Your task to perform on an android device: turn on data saver in the chrome app Image 0: 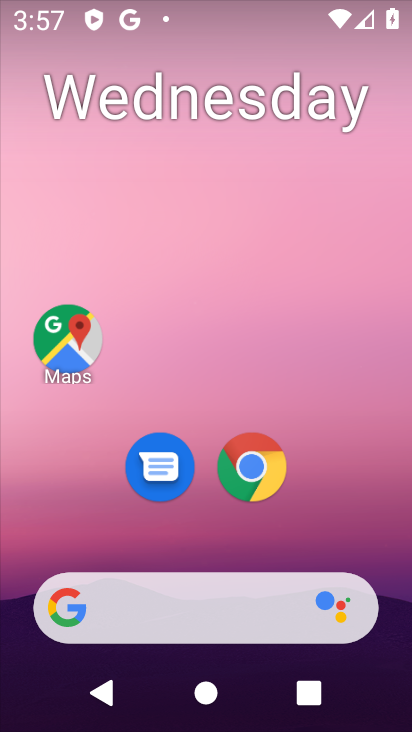
Step 0: drag from (210, 565) to (238, 205)
Your task to perform on an android device: turn on data saver in the chrome app Image 1: 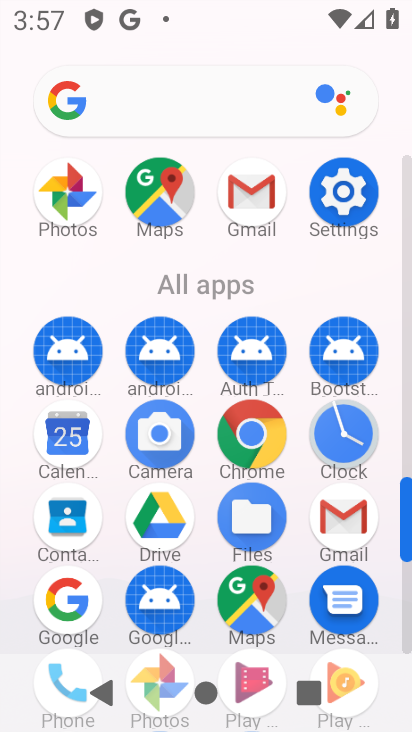
Step 1: click (260, 445)
Your task to perform on an android device: turn on data saver in the chrome app Image 2: 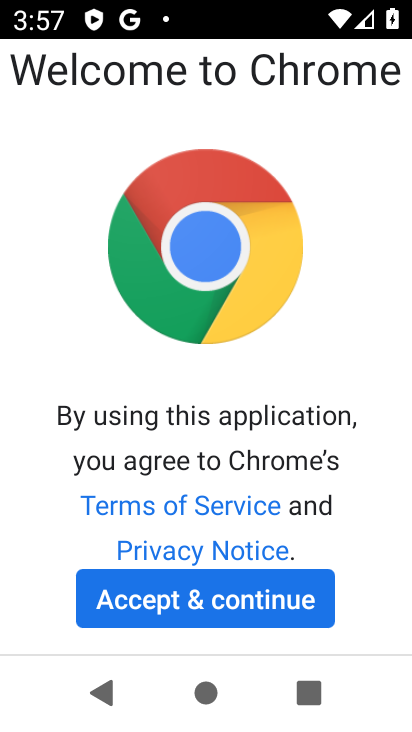
Step 2: click (247, 596)
Your task to perform on an android device: turn on data saver in the chrome app Image 3: 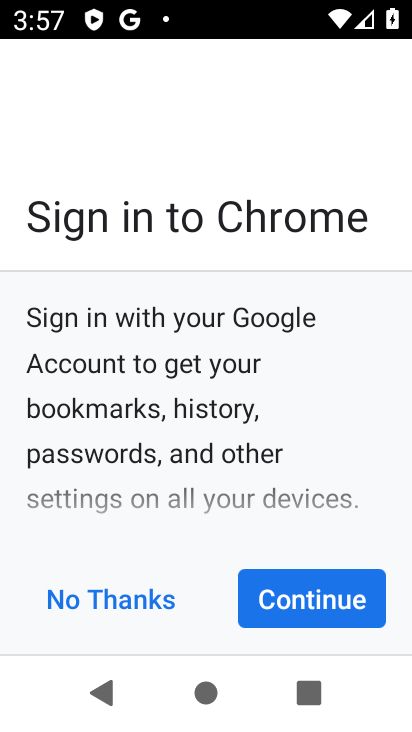
Step 3: click (280, 585)
Your task to perform on an android device: turn on data saver in the chrome app Image 4: 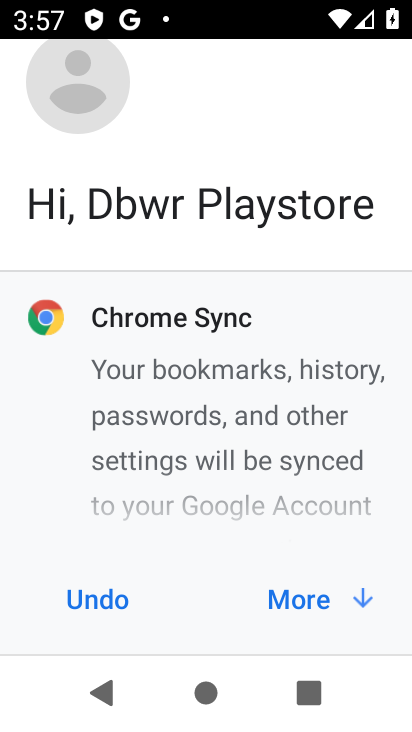
Step 4: click (290, 603)
Your task to perform on an android device: turn on data saver in the chrome app Image 5: 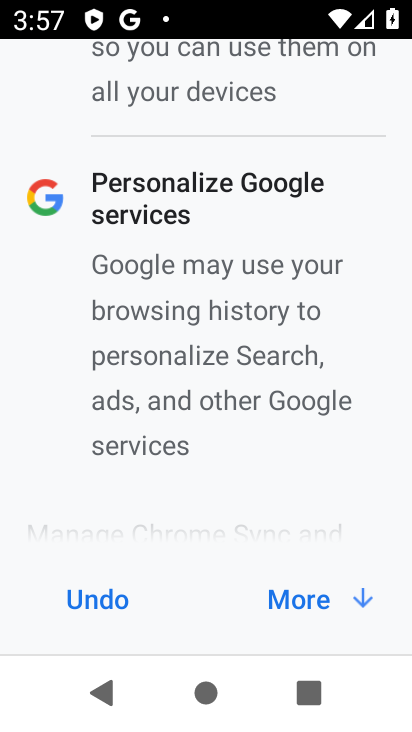
Step 5: click (280, 603)
Your task to perform on an android device: turn on data saver in the chrome app Image 6: 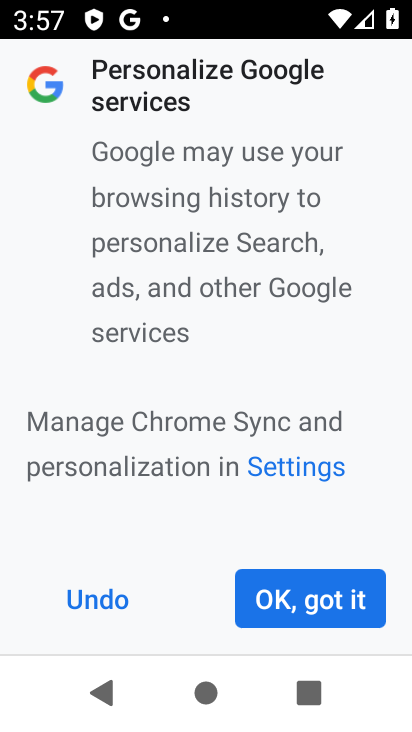
Step 6: click (291, 615)
Your task to perform on an android device: turn on data saver in the chrome app Image 7: 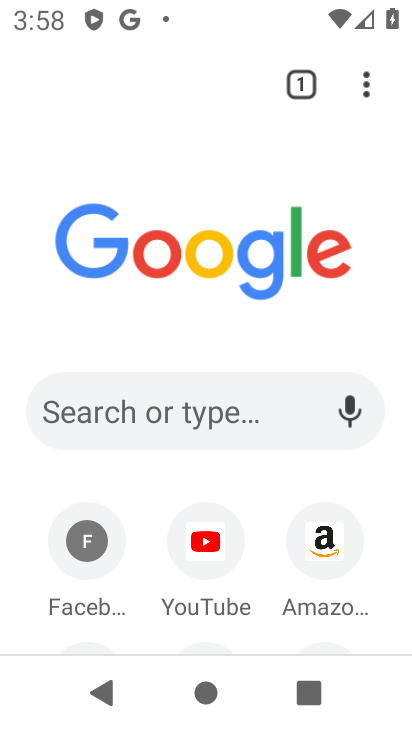
Step 7: click (364, 74)
Your task to perform on an android device: turn on data saver in the chrome app Image 8: 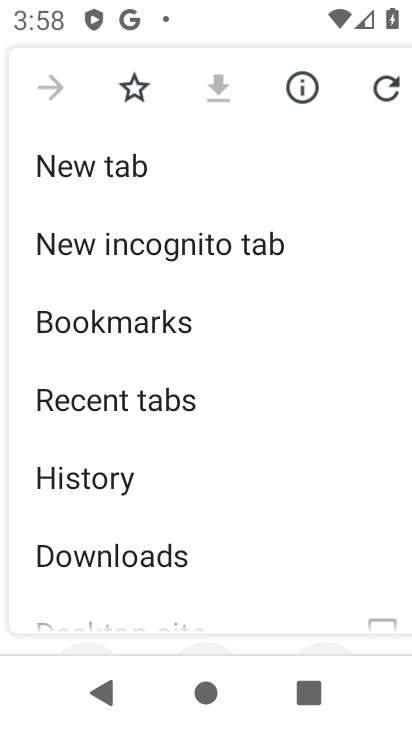
Step 8: drag from (180, 573) to (219, 218)
Your task to perform on an android device: turn on data saver in the chrome app Image 9: 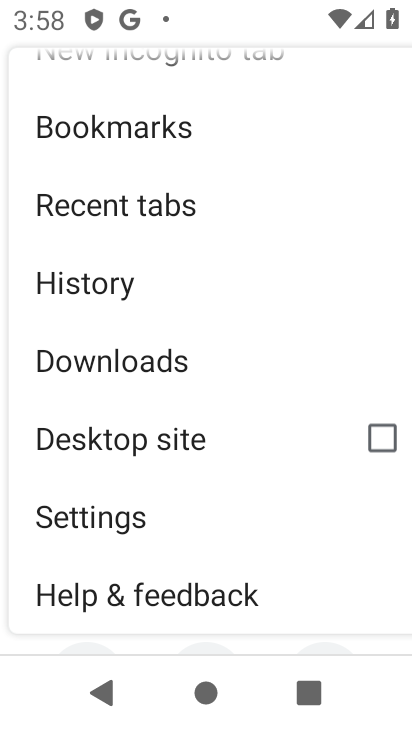
Step 9: click (135, 517)
Your task to perform on an android device: turn on data saver in the chrome app Image 10: 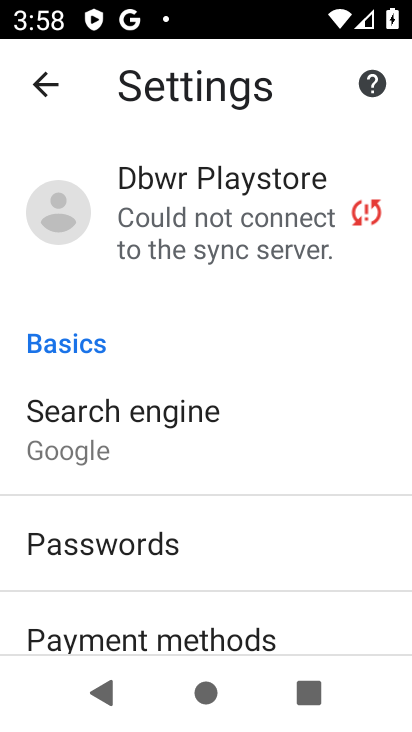
Step 10: drag from (136, 549) to (197, 177)
Your task to perform on an android device: turn on data saver in the chrome app Image 11: 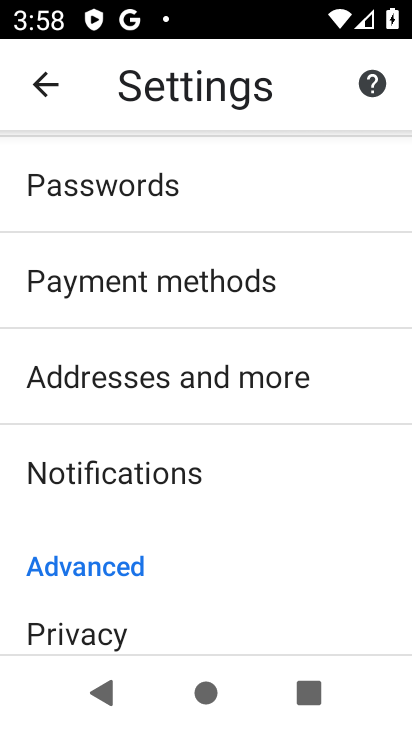
Step 11: drag from (125, 566) to (163, 195)
Your task to perform on an android device: turn on data saver in the chrome app Image 12: 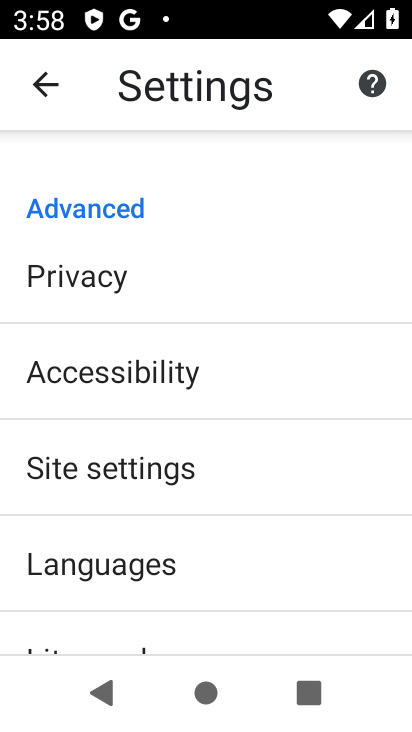
Step 12: drag from (133, 438) to (194, 55)
Your task to perform on an android device: turn on data saver in the chrome app Image 13: 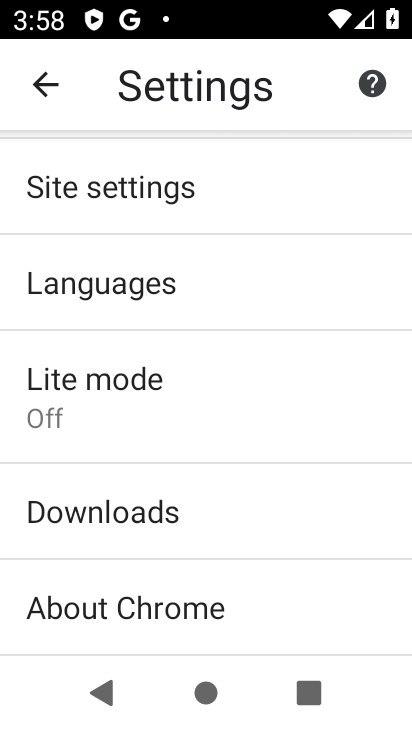
Step 13: click (122, 412)
Your task to perform on an android device: turn on data saver in the chrome app Image 14: 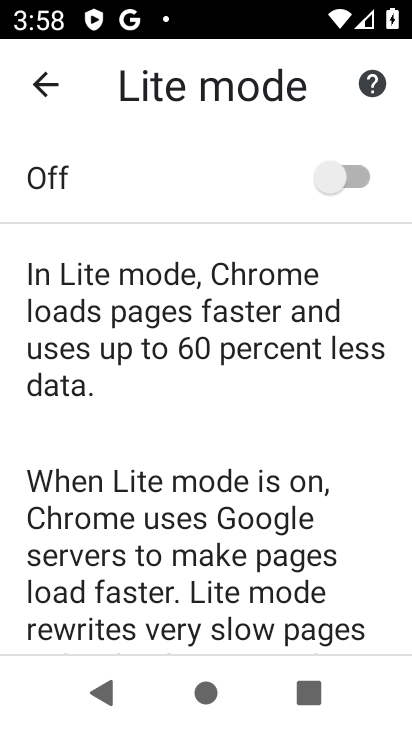
Step 14: click (345, 183)
Your task to perform on an android device: turn on data saver in the chrome app Image 15: 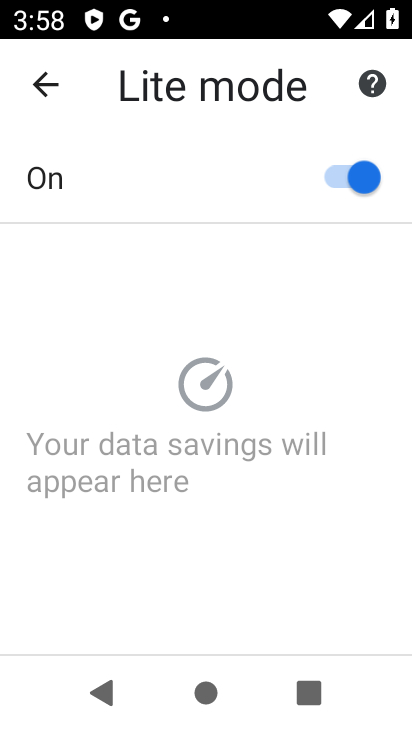
Step 15: task complete